Your task to perform on an android device: check battery use Image 0: 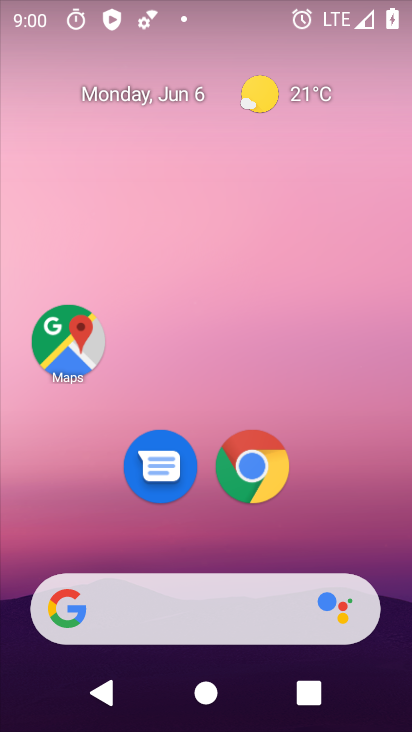
Step 0: drag from (202, 559) to (263, 94)
Your task to perform on an android device: check battery use Image 1: 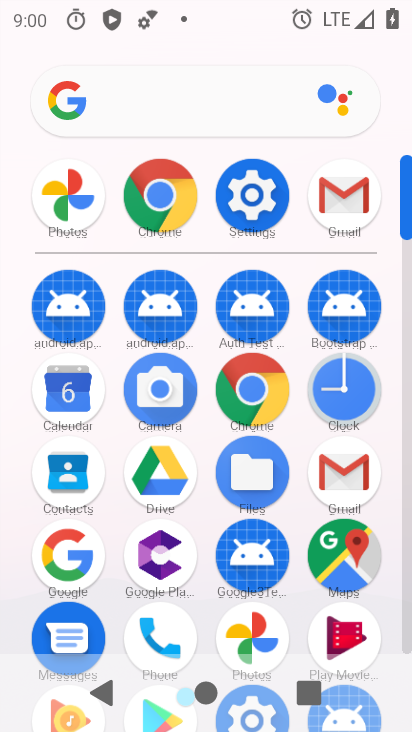
Step 1: click (256, 172)
Your task to perform on an android device: check battery use Image 2: 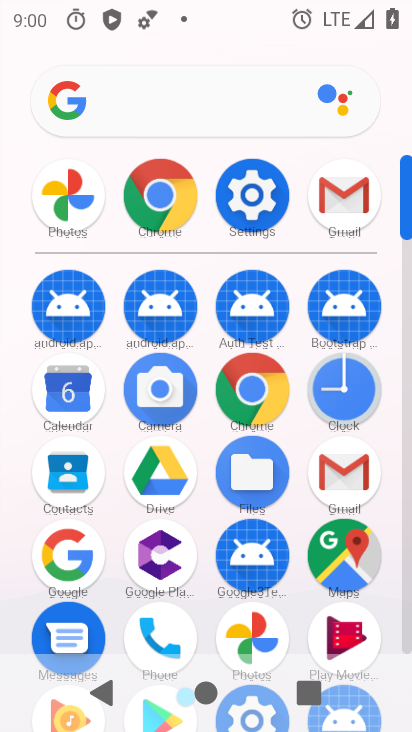
Step 2: click (256, 172)
Your task to perform on an android device: check battery use Image 3: 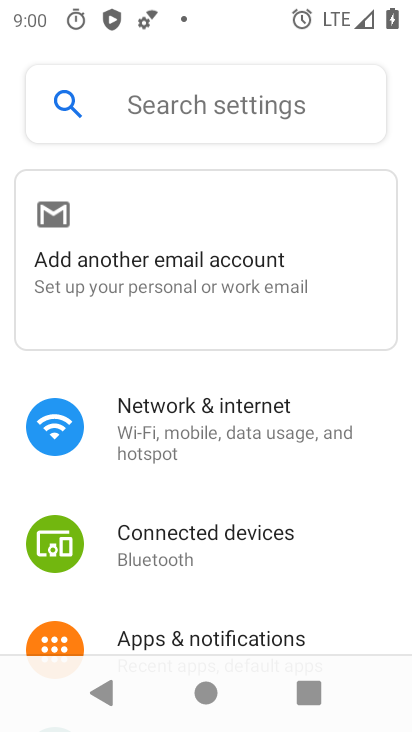
Step 3: drag from (207, 582) to (365, 87)
Your task to perform on an android device: check battery use Image 4: 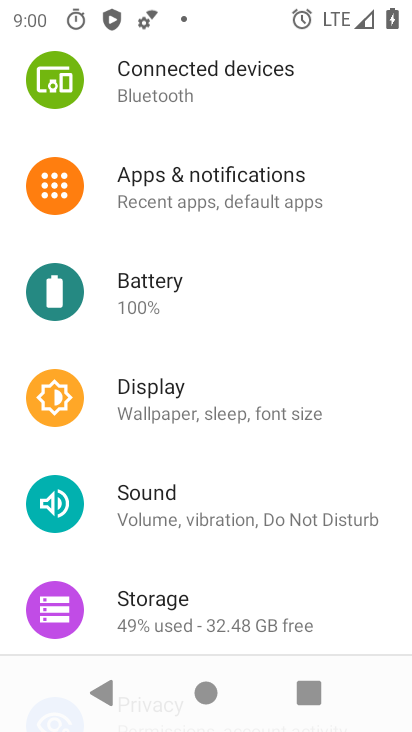
Step 4: click (201, 281)
Your task to perform on an android device: check battery use Image 5: 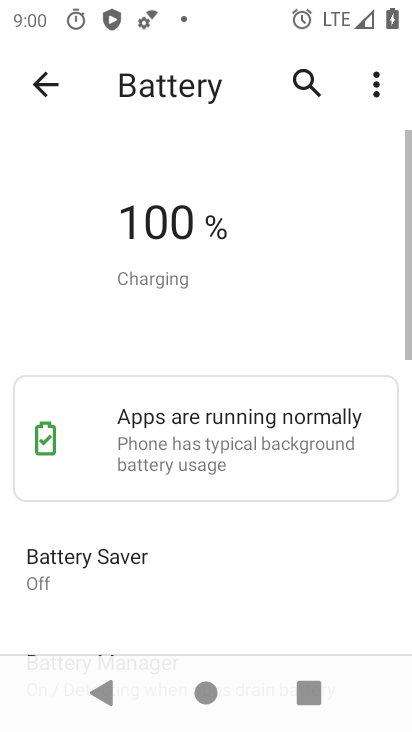
Step 5: drag from (267, 482) to (388, 160)
Your task to perform on an android device: check battery use Image 6: 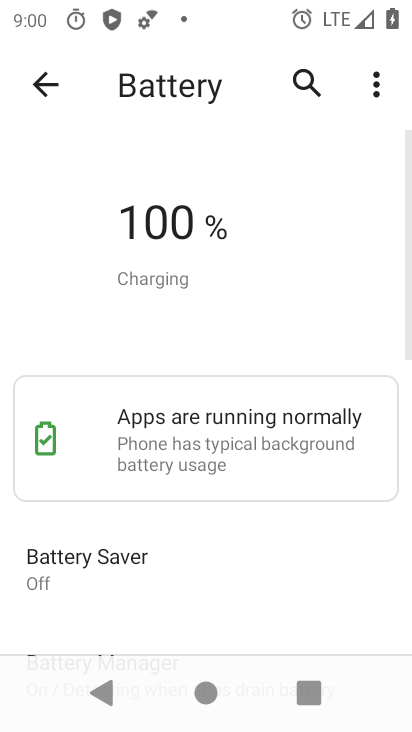
Step 6: click (382, 89)
Your task to perform on an android device: check battery use Image 7: 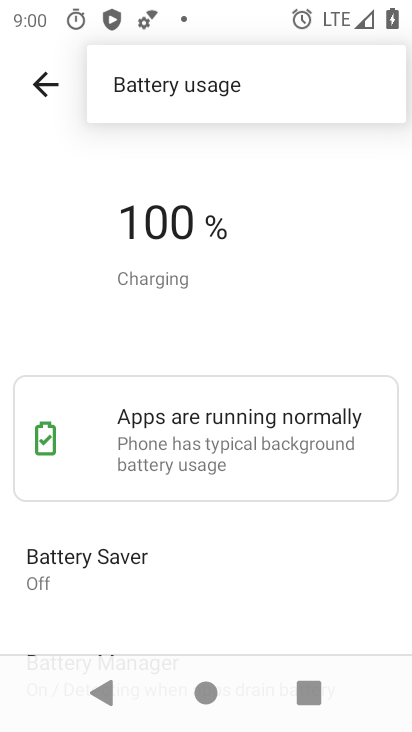
Step 7: click (255, 79)
Your task to perform on an android device: check battery use Image 8: 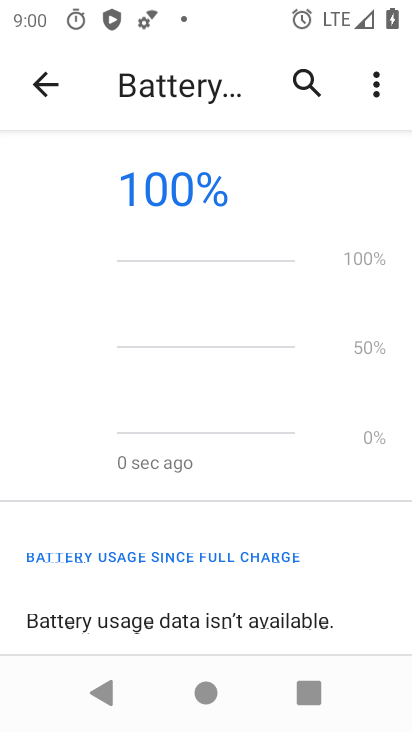
Step 8: task complete